Your task to perform on an android device: show emergency info Image 0: 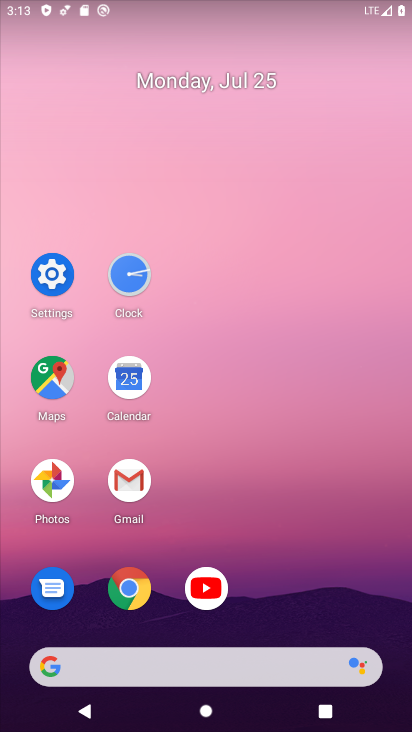
Step 0: click (52, 277)
Your task to perform on an android device: show emergency info Image 1: 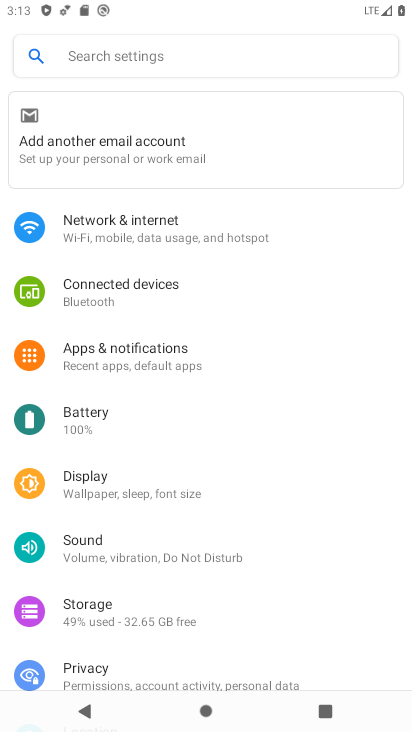
Step 1: drag from (303, 620) to (293, 251)
Your task to perform on an android device: show emergency info Image 2: 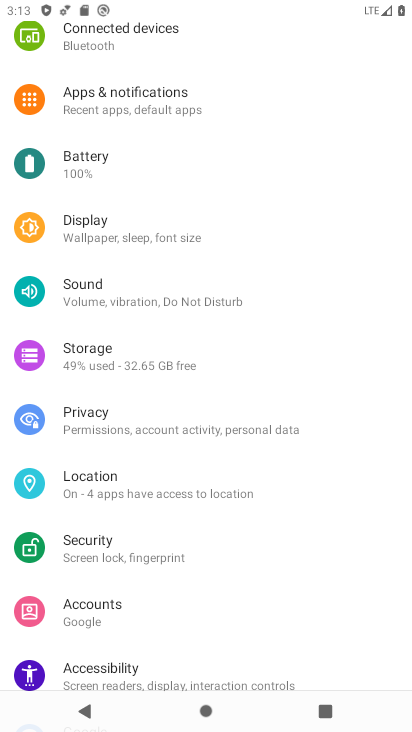
Step 2: drag from (252, 556) to (234, 260)
Your task to perform on an android device: show emergency info Image 3: 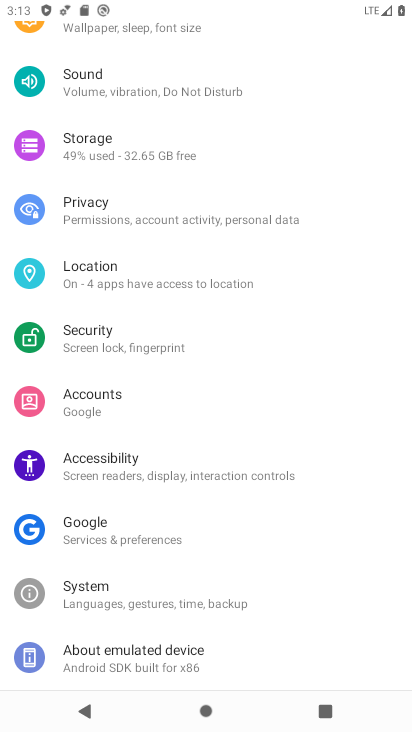
Step 3: click (162, 645)
Your task to perform on an android device: show emergency info Image 4: 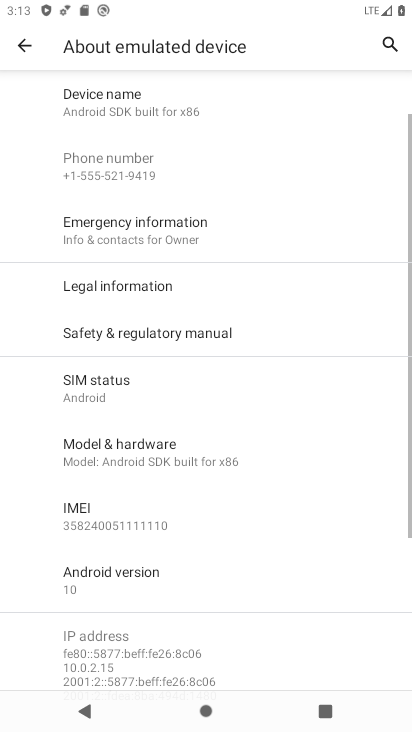
Step 4: click (151, 220)
Your task to perform on an android device: show emergency info Image 5: 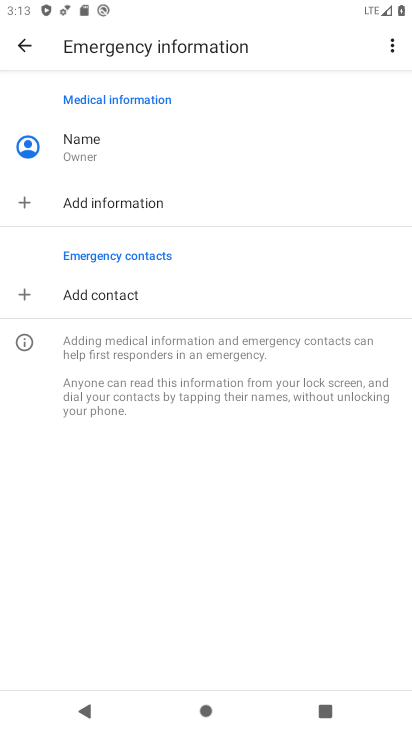
Step 5: task complete